Your task to perform on an android device: Go to display settings Image 0: 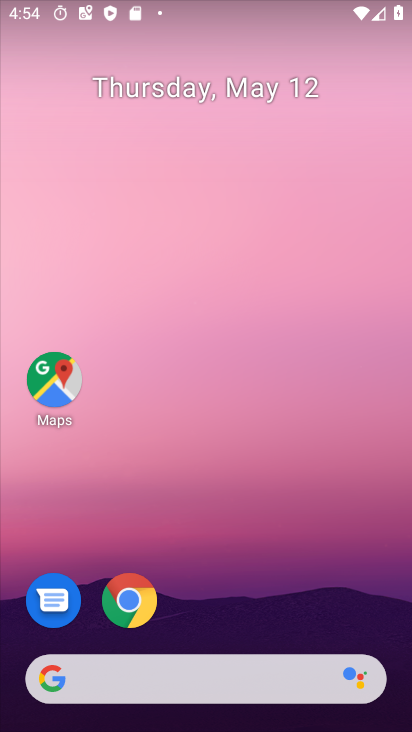
Step 0: drag from (198, 606) to (245, 264)
Your task to perform on an android device: Go to display settings Image 1: 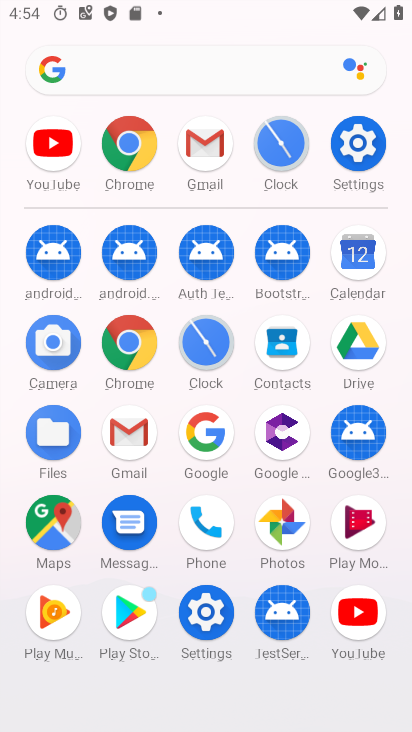
Step 1: click (209, 624)
Your task to perform on an android device: Go to display settings Image 2: 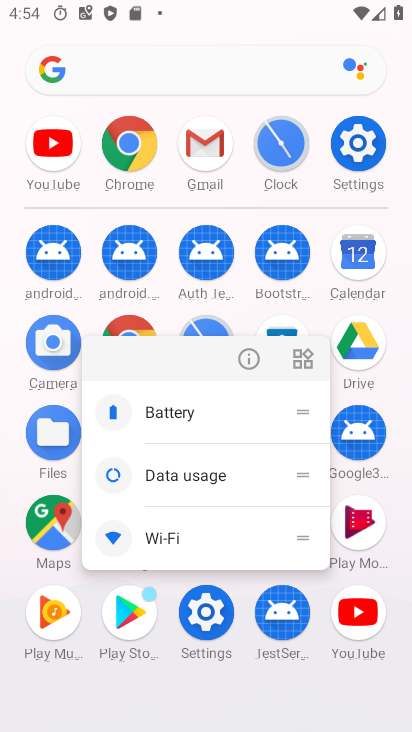
Step 2: click (256, 335)
Your task to perform on an android device: Go to display settings Image 3: 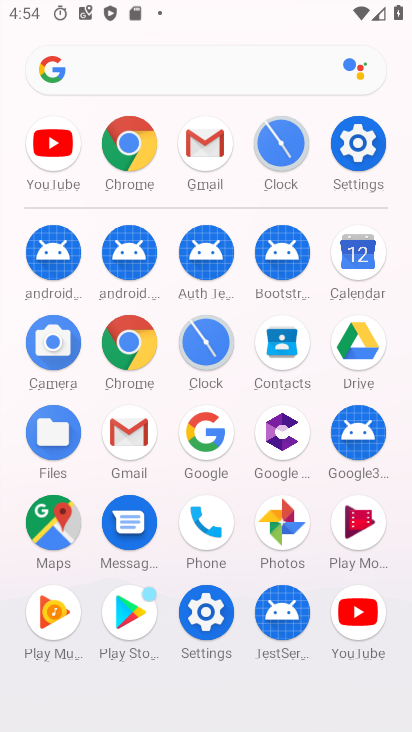
Step 3: click (206, 611)
Your task to perform on an android device: Go to display settings Image 4: 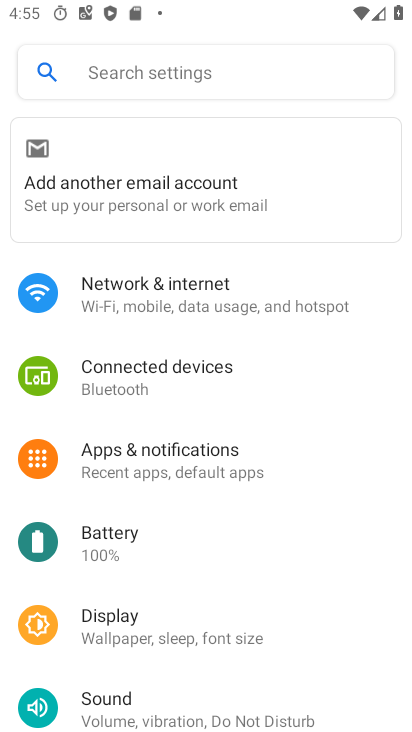
Step 4: click (150, 636)
Your task to perform on an android device: Go to display settings Image 5: 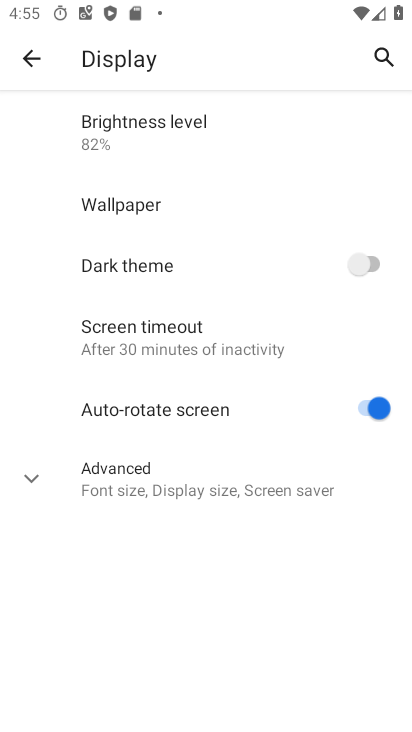
Step 5: drag from (226, 579) to (242, 374)
Your task to perform on an android device: Go to display settings Image 6: 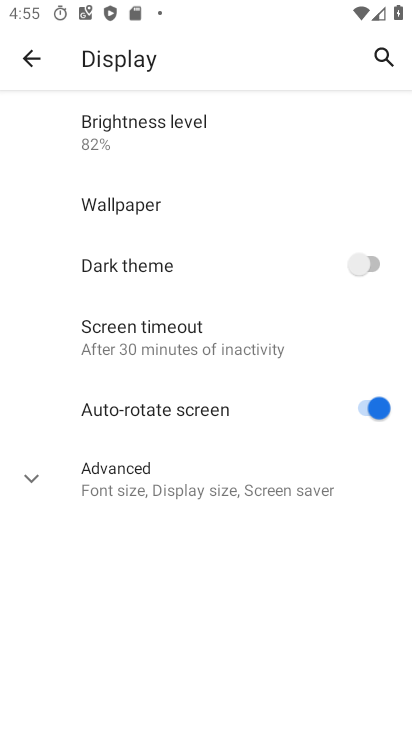
Step 6: click (192, 480)
Your task to perform on an android device: Go to display settings Image 7: 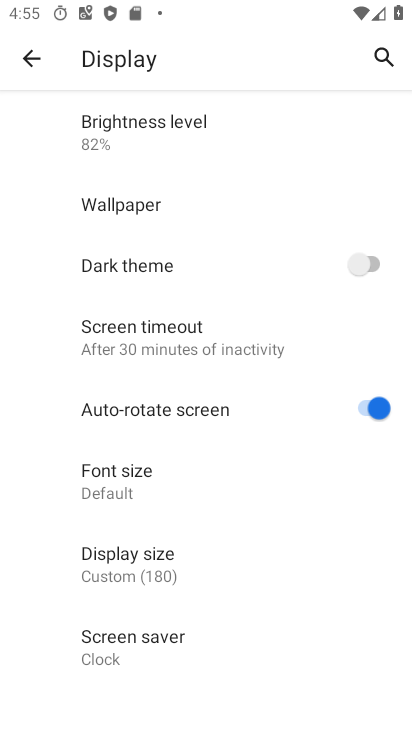
Step 7: task complete